Your task to perform on an android device: Search for the most popular books on Goodreads Image 0: 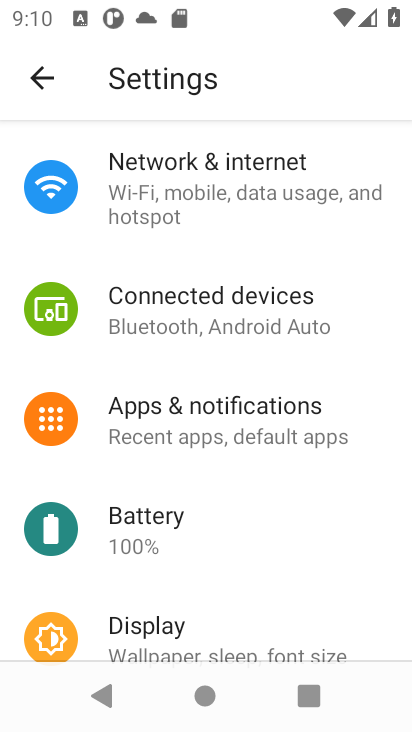
Step 0: press home button
Your task to perform on an android device: Search for the most popular books on Goodreads Image 1: 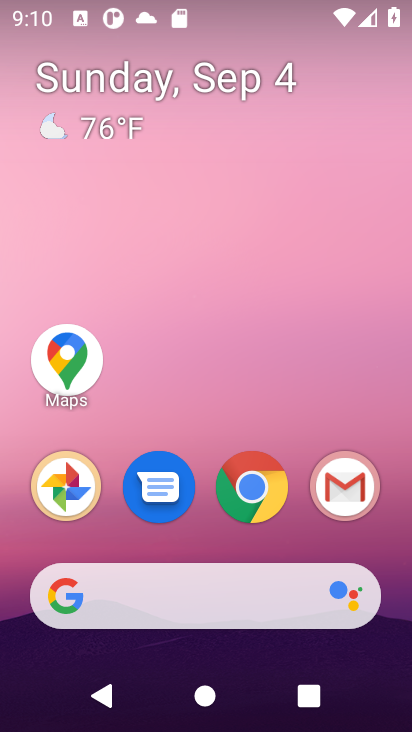
Step 1: click (210, 582)
Your task to perform on an android device: Search for the most popular books on Goodreads Image 2: 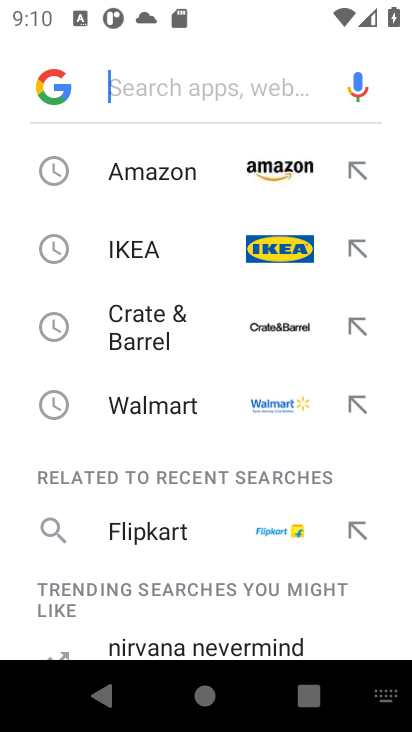
Step 2: type "goodreads.com"
Your task to perform on an android device: Search for the most popular books on Goodreads Image 3: 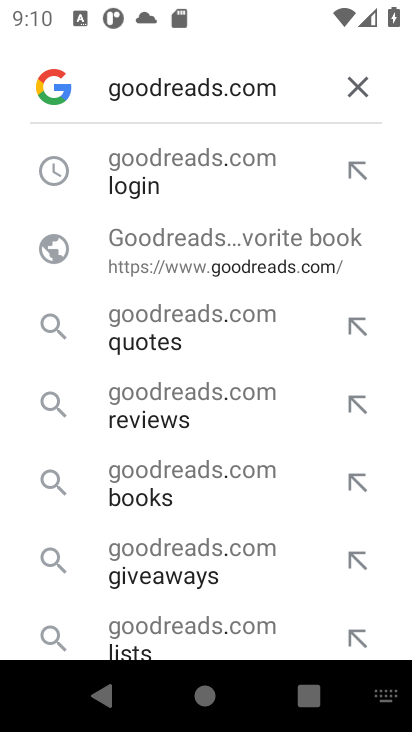
Step 3: click (320, 254)
Your task to perform on an android device: Search for the most popular books on Goodreads Image 4: 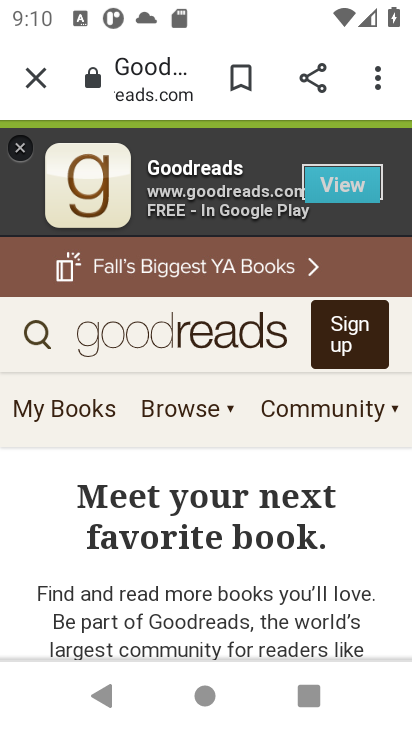
Step 4: click (223, 398)
Your task to perform on an android device: Search for the most popular books on Goodreads Image 5: 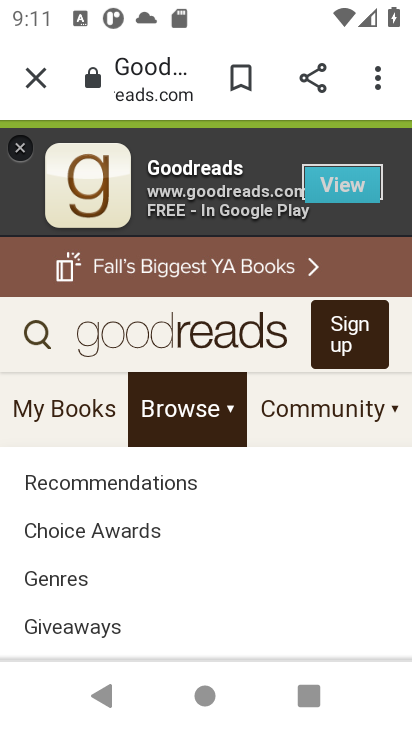
Step 5: drag from (136, 626) to (146, 470)
Your task to perform on an android device: Search for the most popular books on Goodreads Image 6: 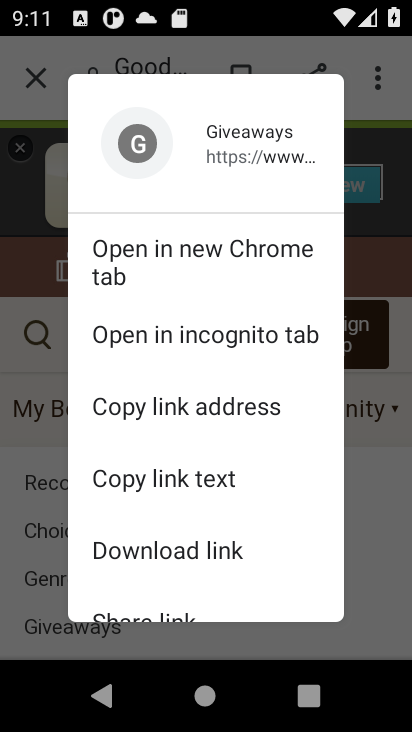
Step 6: click (28, 189)
Your task to perform on an android device: Search for the most popular books on Goodreads Image 7: 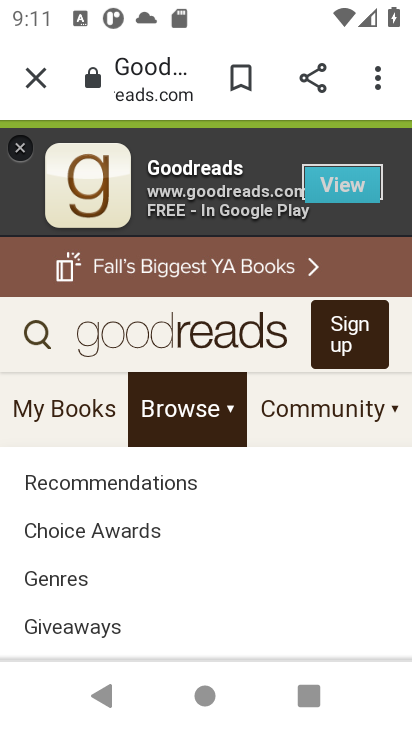
Step 7: drag from (243, 515) to (219, 122)
Your task to perform on an android device: Search for the most popular books on Goodreads Image 8: 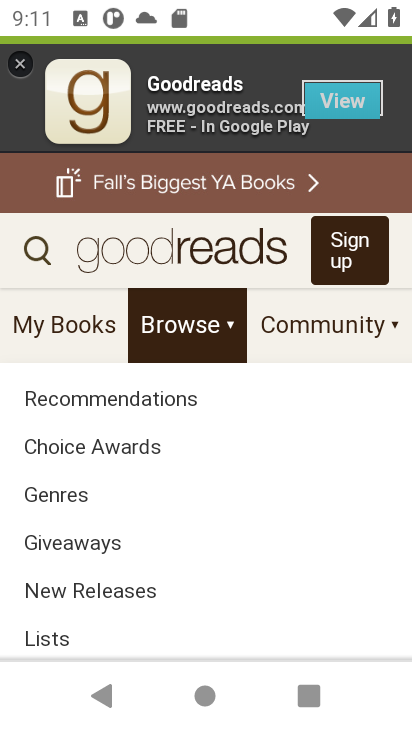
Step 8: drag from (149, 637) to (202, 131)
Your task to perform on an android device: Search for the most popular books on Goodreads Image 9: 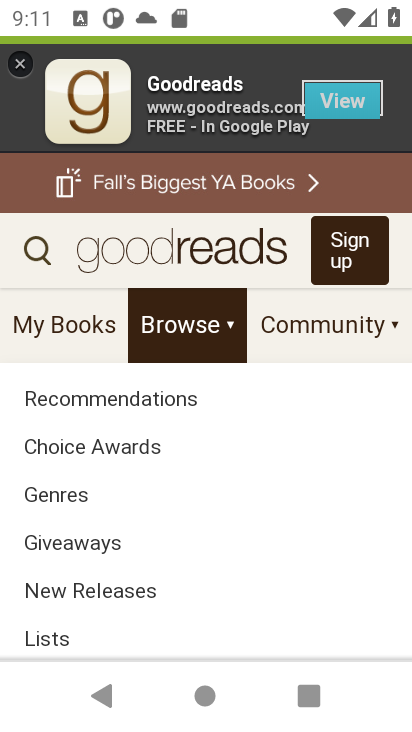
Step 9: drag from (225, 617) to (252, 176)
Your task to perform on an android device: Search for the most popular books on Goodreads Image 10: 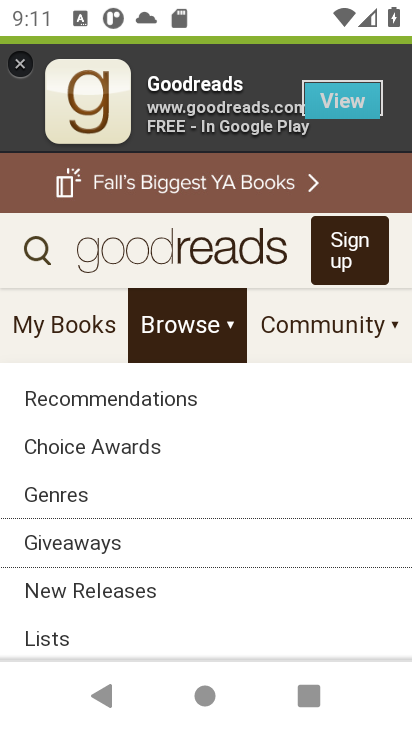
Step 10: click (156, 456)
Your task to perform on an android device: Search for the most popular books on Goodreads Image 11: 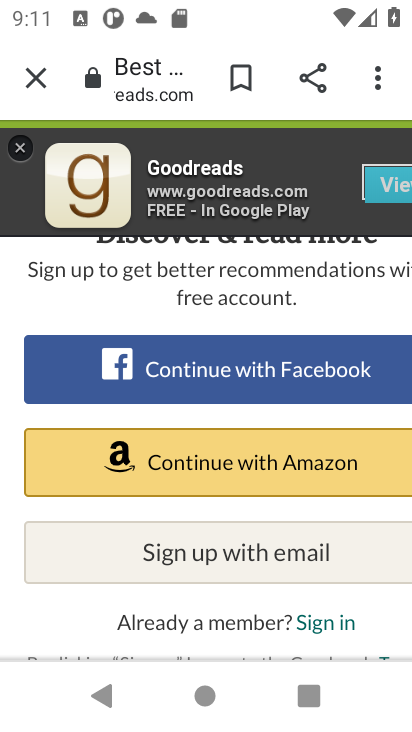
Step 11: task complete